Your task to perform on an android device: turn off javascript in the chrome app Image 0: 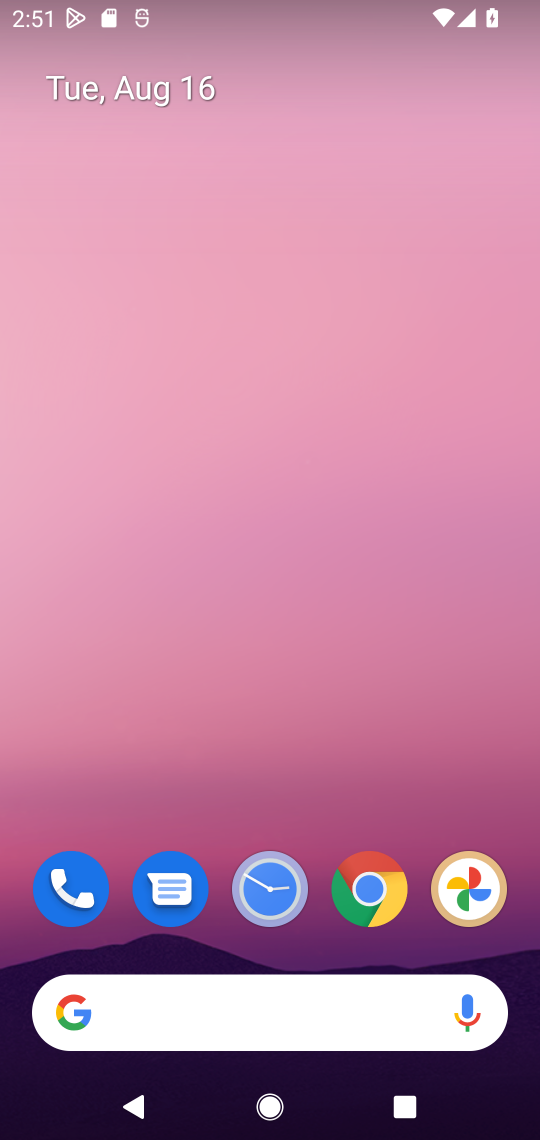
Step 0: click (374, 865)
Your task to perform on an android device: turn off javascript in the chrome app Image 1: 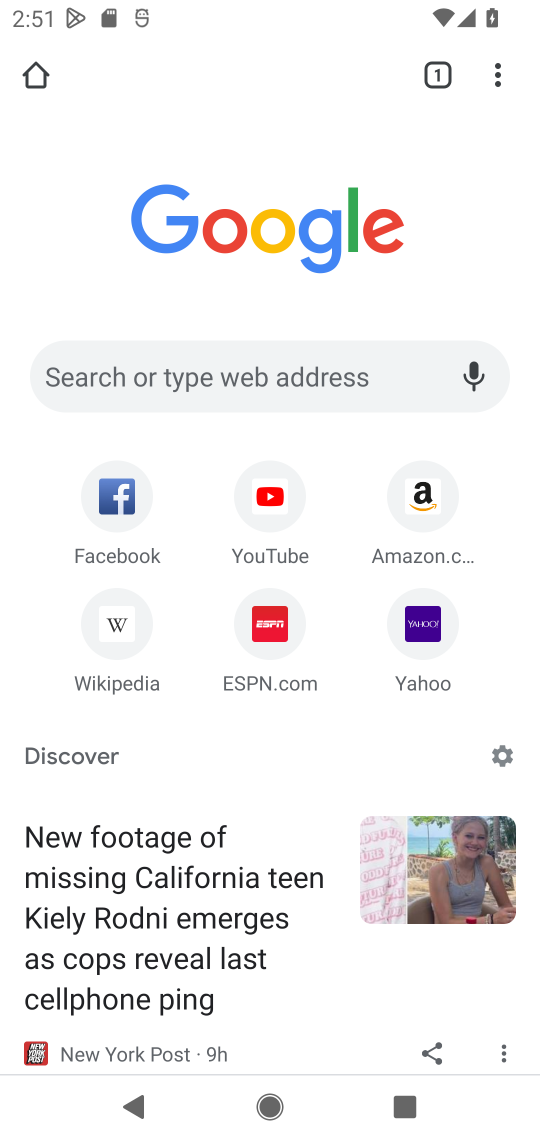
Step 1: task complete